Your task to perform on an android device: Open calendar and show me the fourth week of next month Image 0: 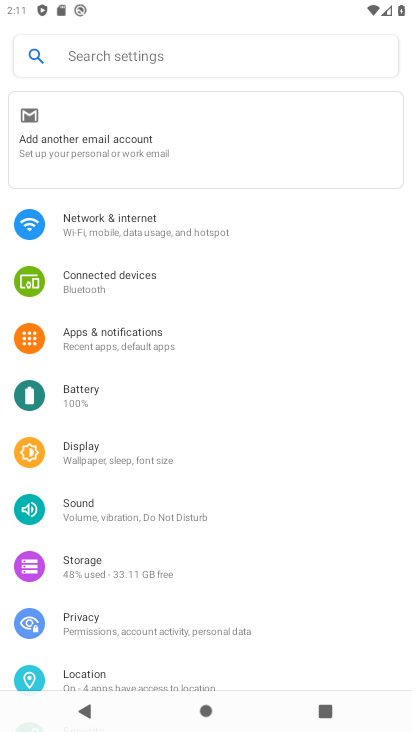
Step 0: press home button
Your task to perform on an android device: Open calendar and show me the fourth week of next month Image 1: 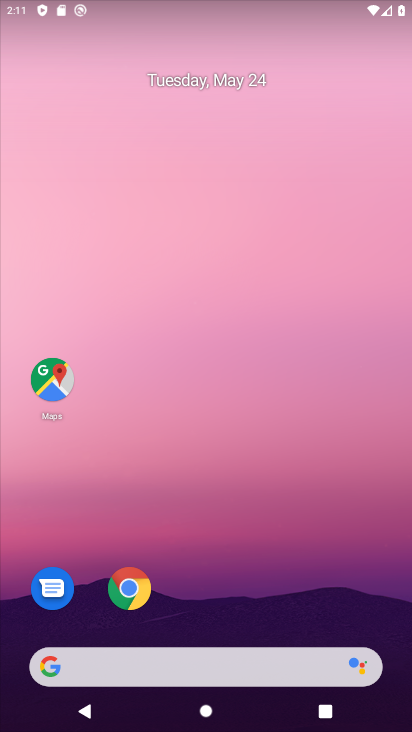
Step 1: drag from (248, 526) to (284, 42)
Your task to perform on an android device: Open calendar and show me the fourth week of next month Image 2: 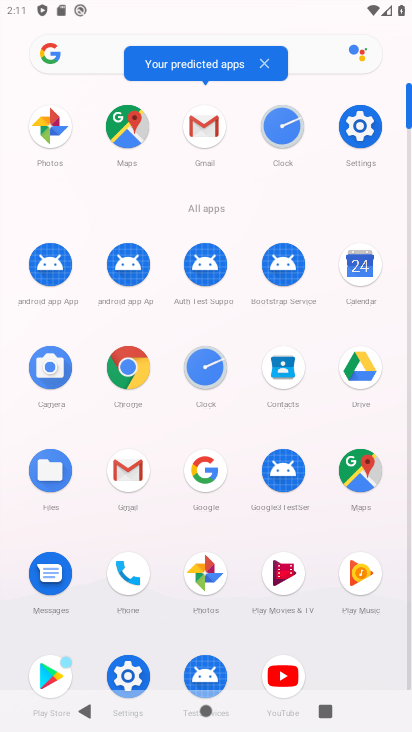
Step 2: click (354, 267)
Your task to perform on an android device: Open calendar and show me the fourth week of next month Image 3: 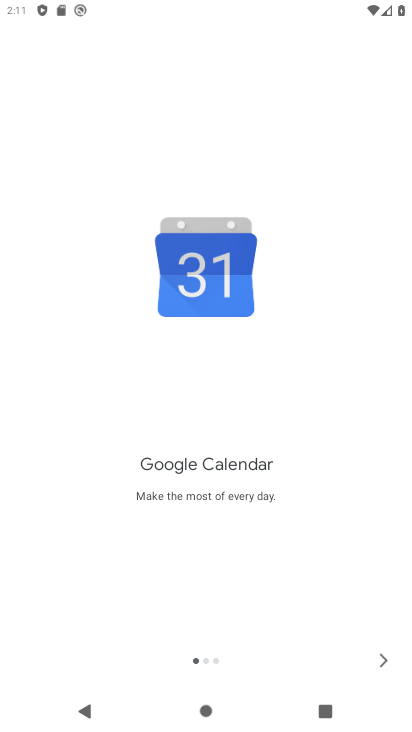
Step 3: click (382, 656)
Your task to perform on an android device: Open calendar and show me the fourth week of next month Image 4: 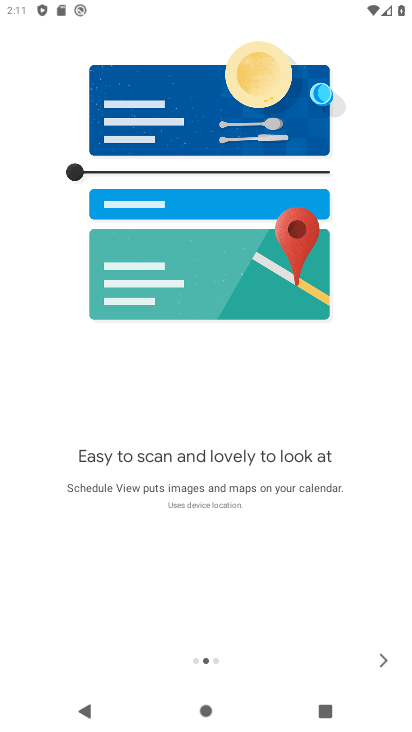
Step 4: click (384, 656)
Your task to perform on an android device: Open calendar and show me the fourth week of next month Image 5: 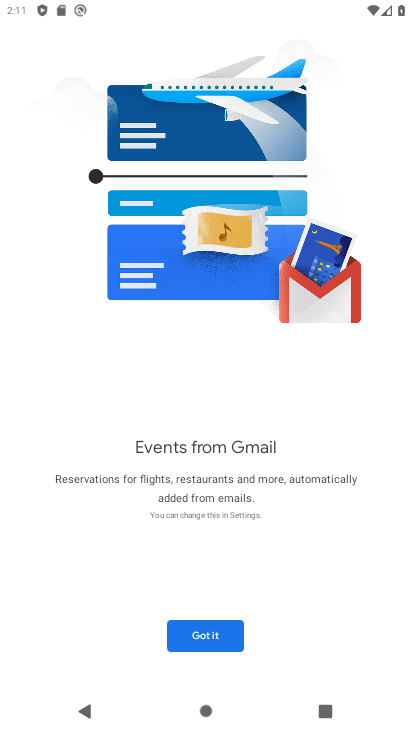
Step 5: click (233, 633)
Your task to perform on an android device: Open calendar and show me the fourth week of next month Image 6: 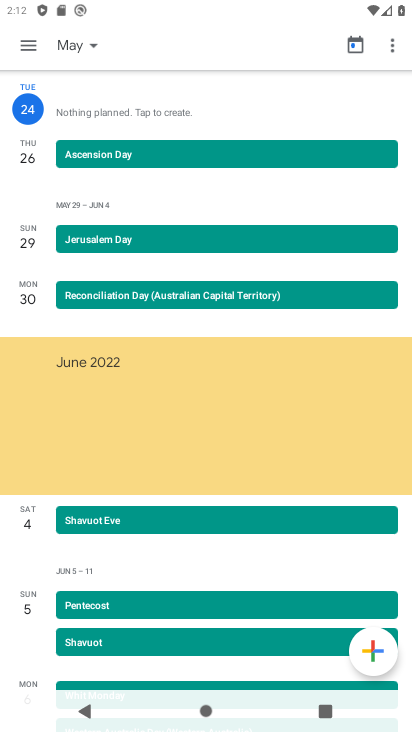
Step 6: click (23, 41)
Your task to perform on an android device: Open calendar and show me the fourth week of next month Image 7: 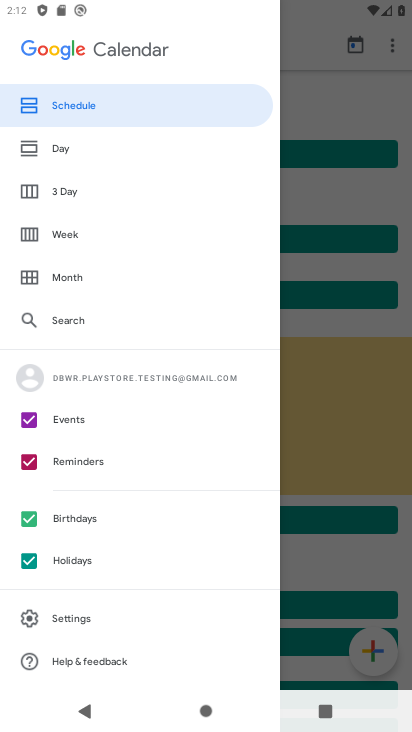
Step 7: click (33, 270)
Your task to perform on an android device: Open calendar and show me the fourth week of next month Image 8: 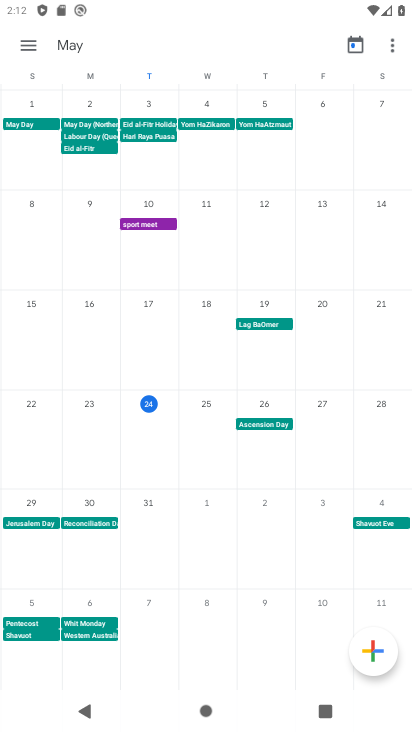
Step 8: drag from (337, 431) to (0, 438)
Your task to perform on an android device: Open calendar and show me the fourth week of next month Image 9: 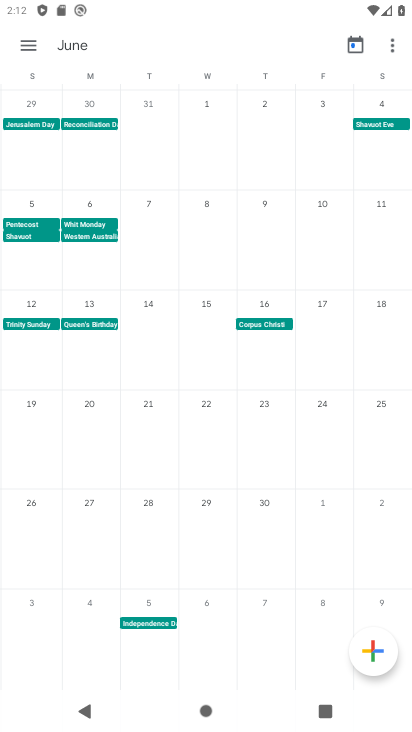
Step 9: click (37, 513)
Your task to perform on an android device: Open calendar and show me the fourth week of next month Image 10: 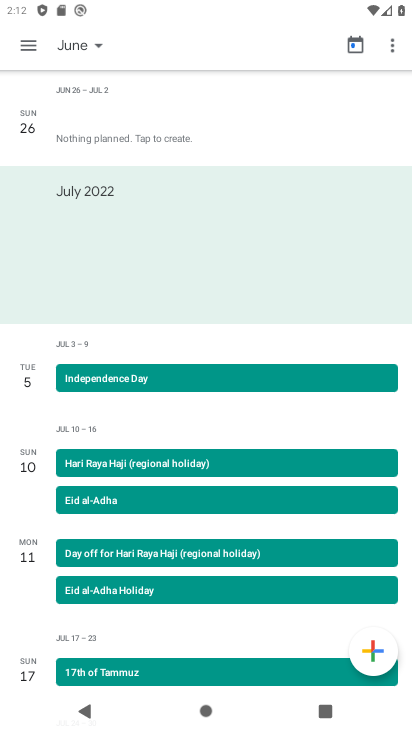
Step 10: click (25, 45)
Your task to perform on an android device: Open calendar and show me the fourth week of next month Image 11: 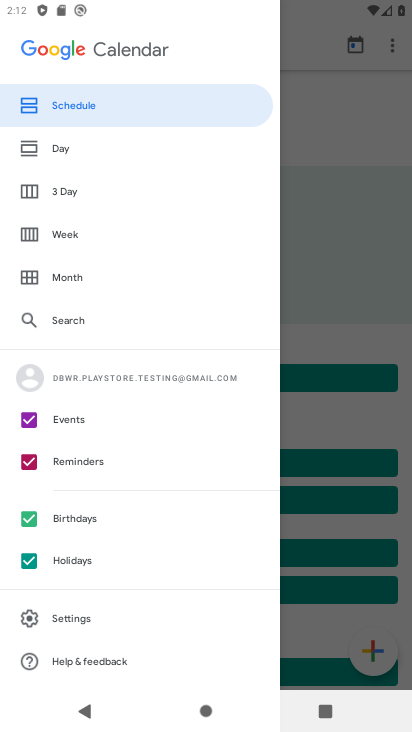
Step 11: click (29, 226)
Your task to perform on an android device: Open calendar and show me the fourth week of next month Image 12: 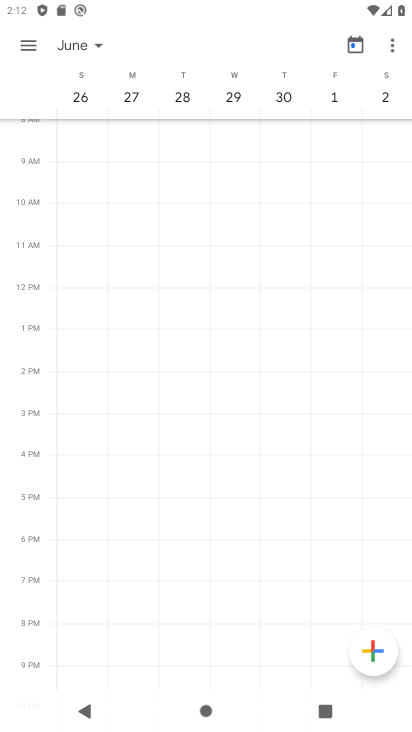
Step 12: task complete